Your task to perform on an android device: Go to internet settings Image 0: 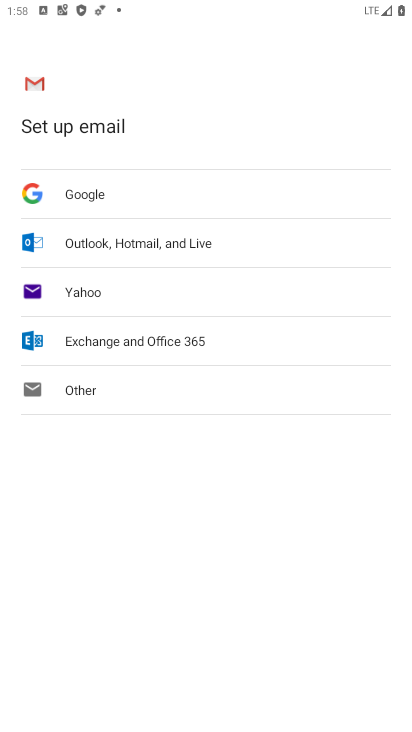
Step 0: press home button
Your task to perform on an android device: Go to internet settings Image 1: 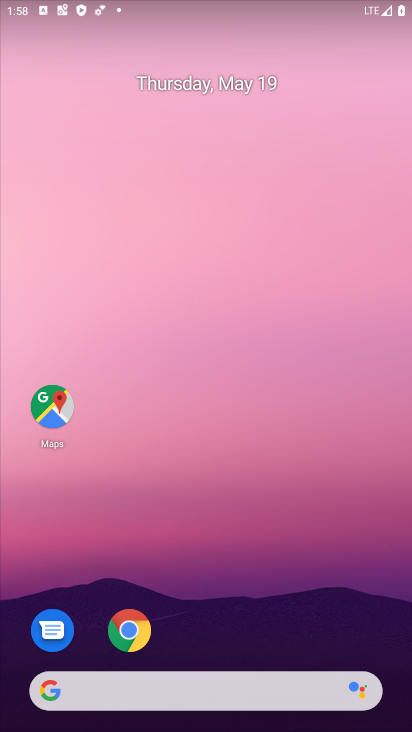
Step 1: drag from (380, 643) to (343, 103)
Your task to perform on an android device: Go to internet settings Image 2: 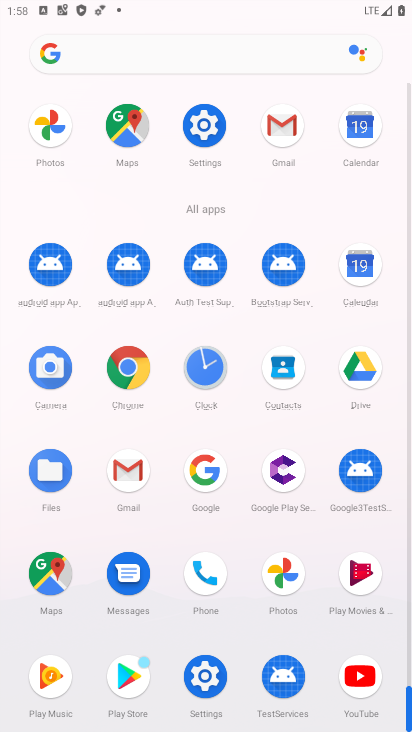
Step 2: click (206, 678)
Your task to perform on an android device: Go to internet settings Image 3: 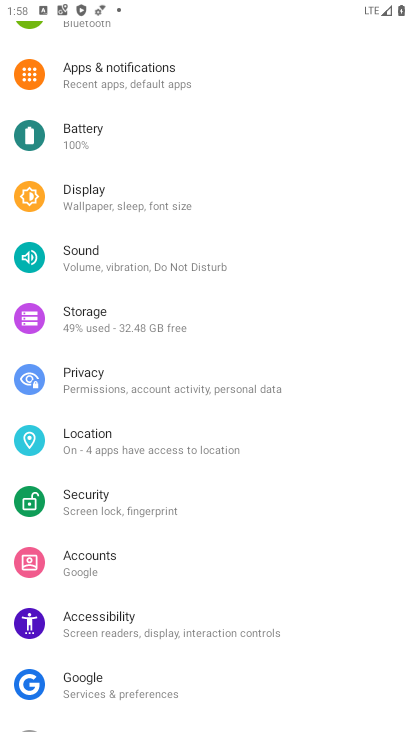
Step 3: drag from (355, 139) to (358, 449)
Your task to perform on an android device: Go to internet settings Image 4: 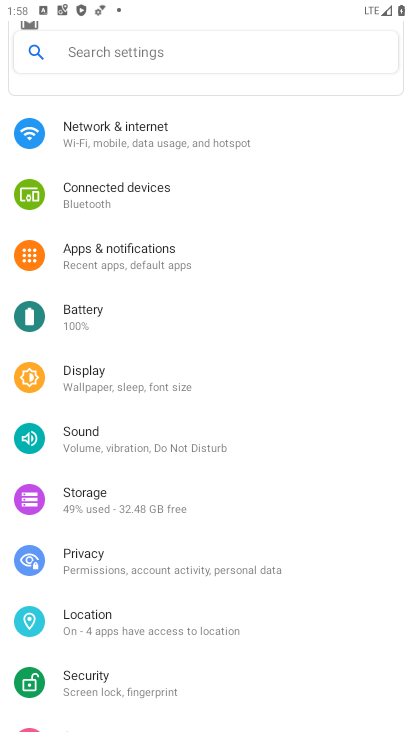
Step 4: click (95, 127)
Your task to perform on an android device: Go to internet settings Image 5: 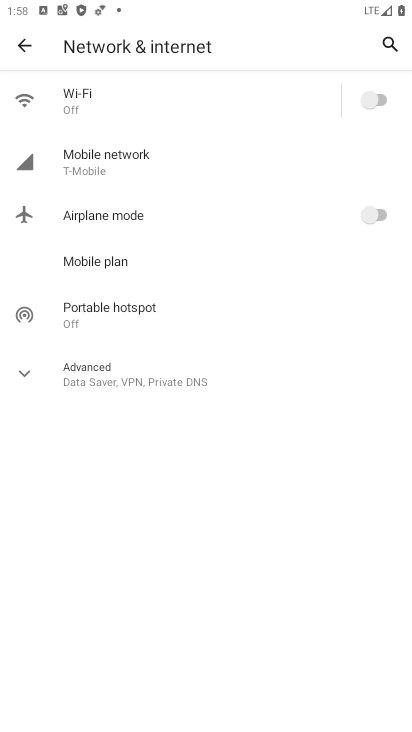
Step 5: click (75, 93)
Your task to perform on an android device: Go to internet settings Image 6: 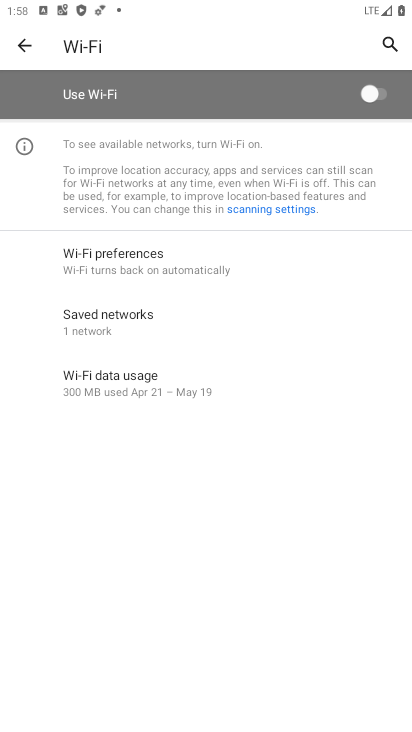
Step 6: task complete